Your task to perform on an android device: Open Google Chrome and open the bookmarks view Image 0: 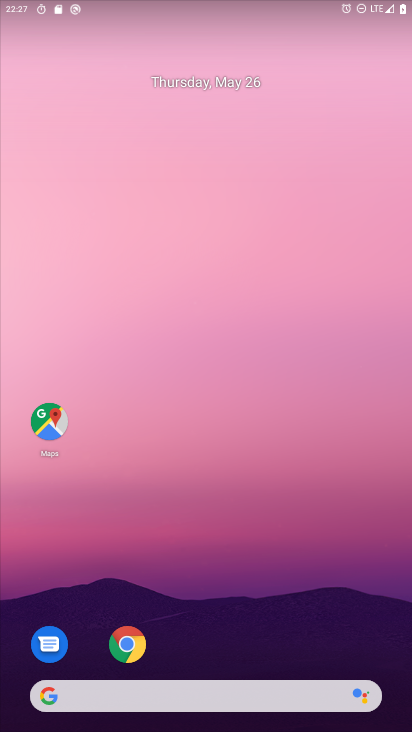
Step 0: drag from (171, 637) to (263, 0)
Your task to perform on an android device: Open Google Chrome and open the bookmarks view Image 1: 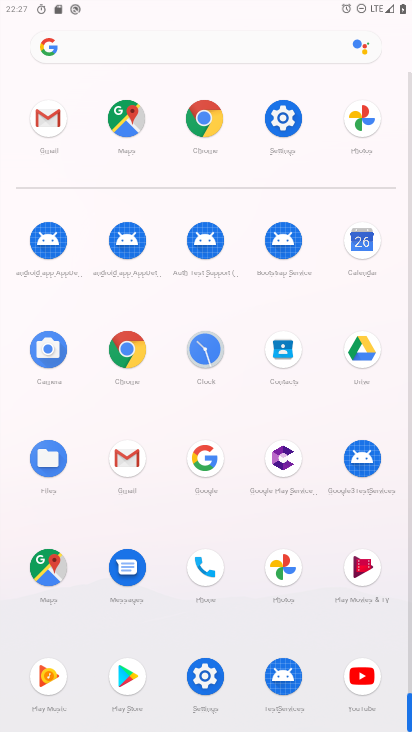
Step 1: click (208, 123)
Your task to perform on an android device: Open Google Chrome and open the bookmarks view Image 2: 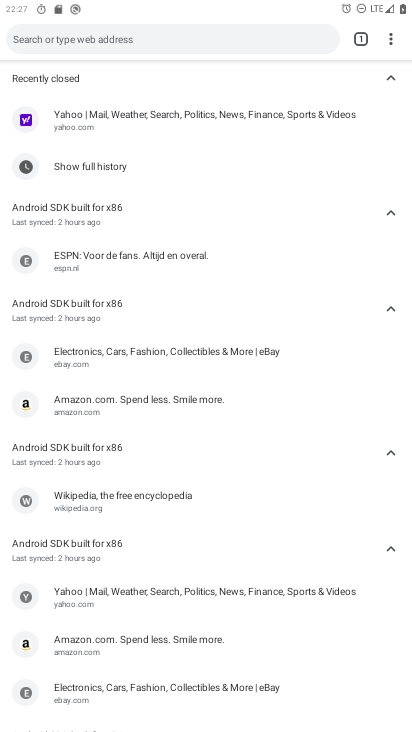
Step 2: task complete